Your task to perform on an android device: delete a single message in the gmail app Image 0: 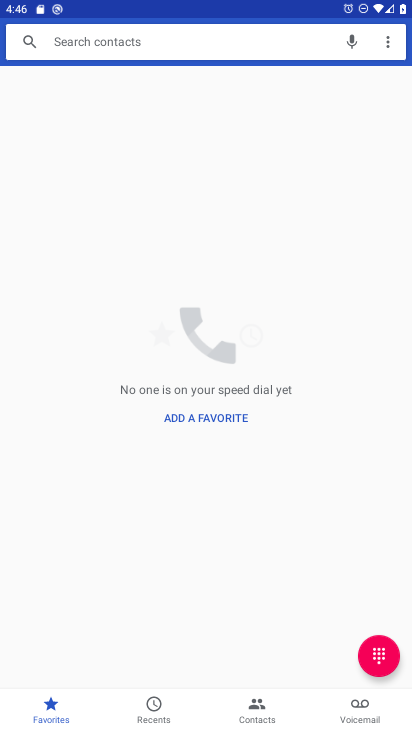
Step 0: press home button
Your task to perform on an android device: delete a single message in the gmail app Image 1: 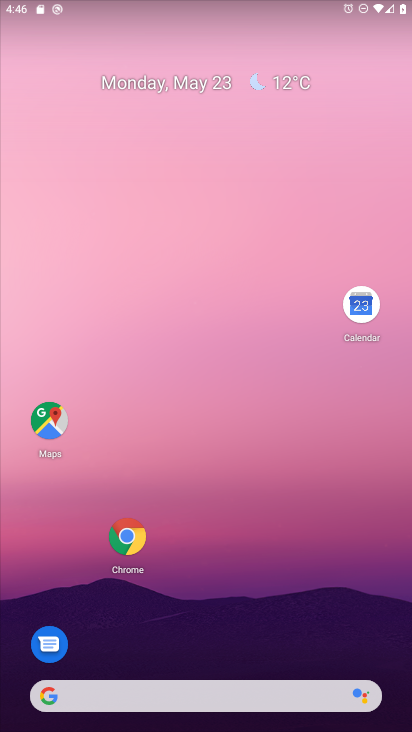
Step 1: drag from (286, 592) to (263, 69)
Your task to perform on an android device: delete a single message in the gmail app Image 2: 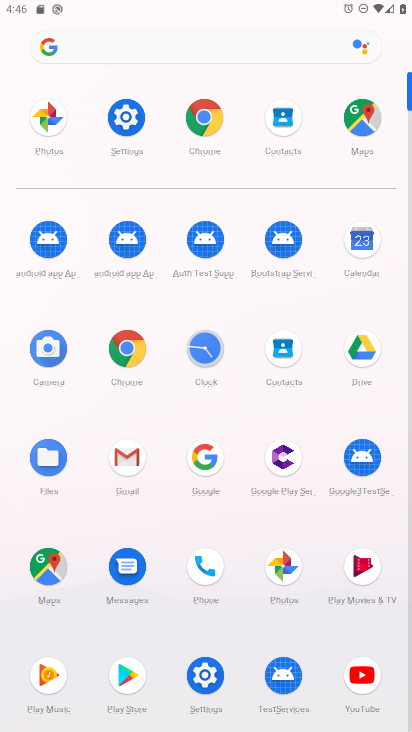
Step 2: click (123, 452)
Your task to perform on an android device: delete a single message in the gmail app Image 3: 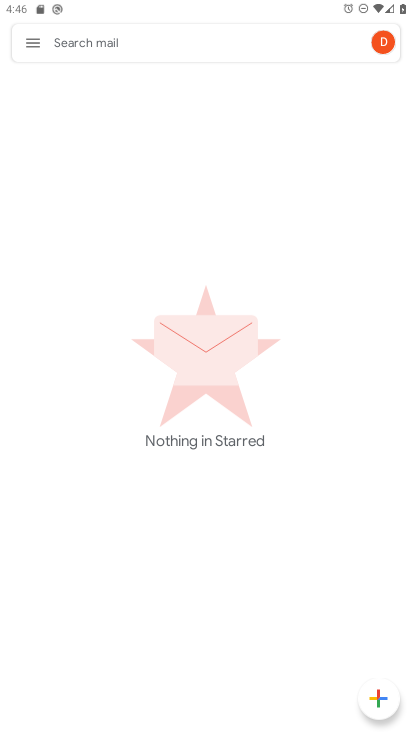
Step 3: click (39, 40)
Your task to perform on an android device: delete a single message in the gmail app Image 4: 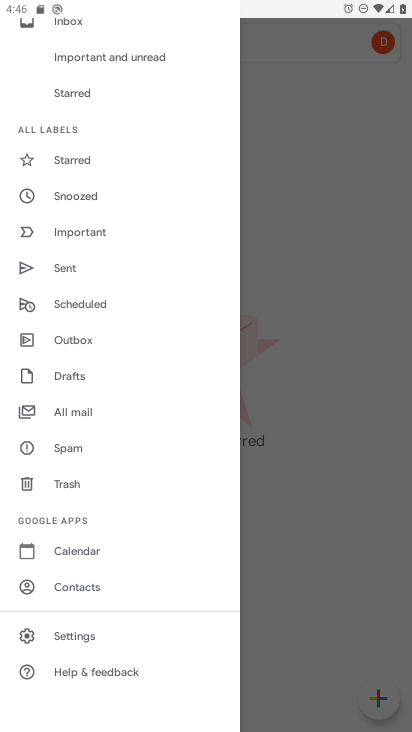
Step 4: click (93, 406)
Your task to perform on an android device: delete a single message in the gmail app Image 5: 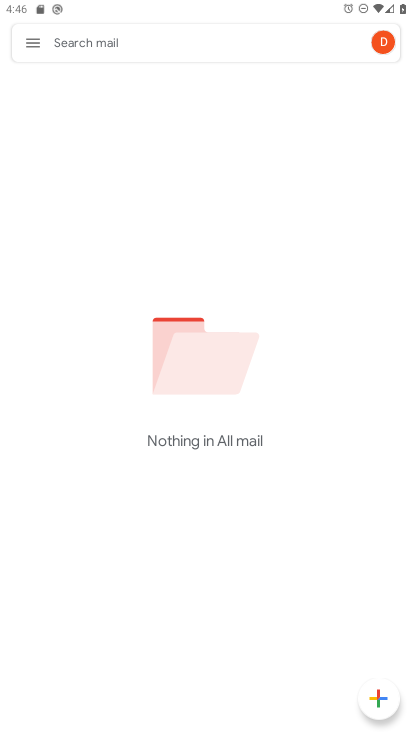
Step 5: task complete